Your task to perform on an android device: visit the assistant section in the google photos Image 0: 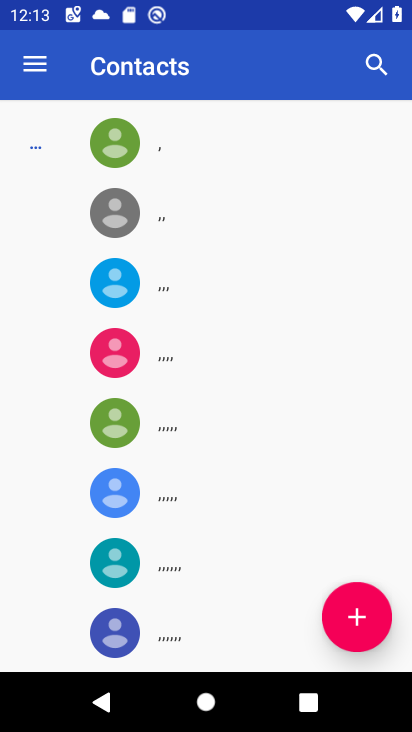
Step 0: press home button
Your task to perform on an android device: visit the assistant section in the google photos Image 1: 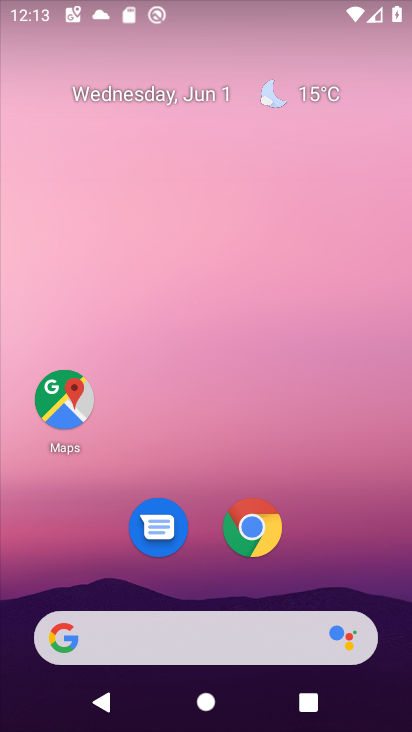
Step 1: drag from (358, 614) to (325, 0)
Your task to perform on an android device: visit the assistant section in the google photos Image 2: 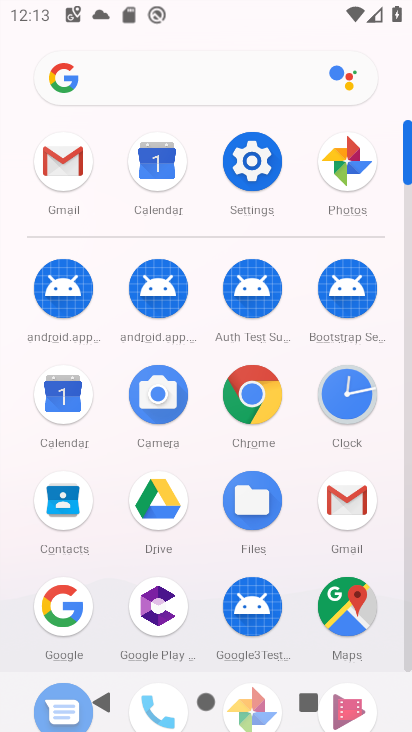
Step 2: click (349, 166)
Your task to perform on an android device: visit the assistant section in the google photos Image 3: 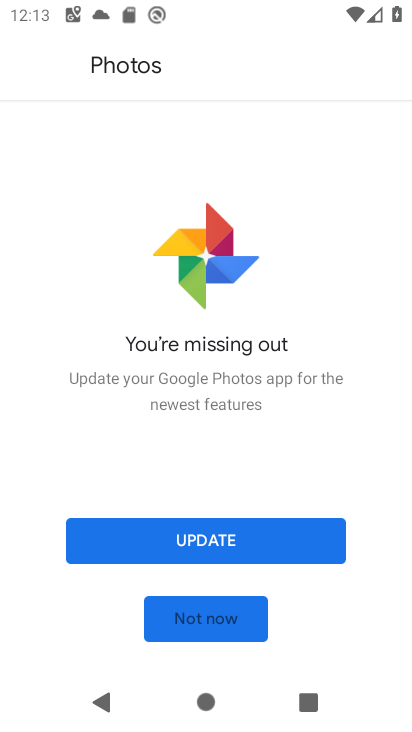
Step 3: click (225, 606)
Your task to perform on an android device: visit the assistant section in the google photos Image 4: 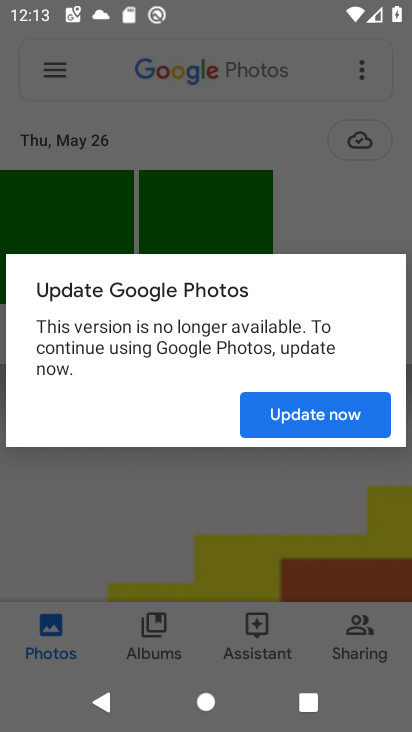
Step 4: click (322, 406)
Your task to perform on an android device: visit the assistant section in the google photos Image 5: 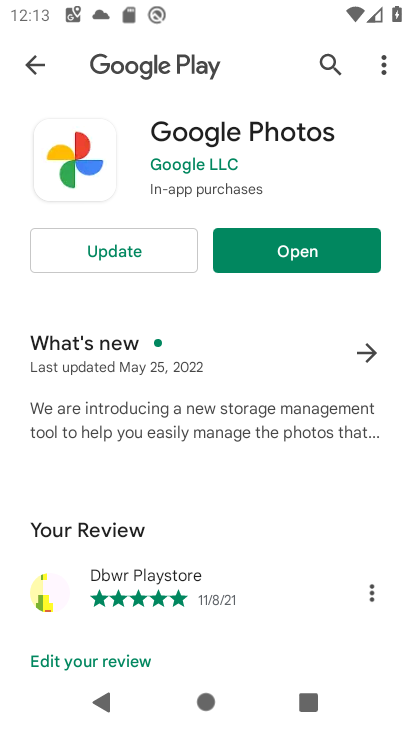
Step 5: click (275, 256)
Your task to perform on an android device: visit the assistant section in the google photos Image 6: 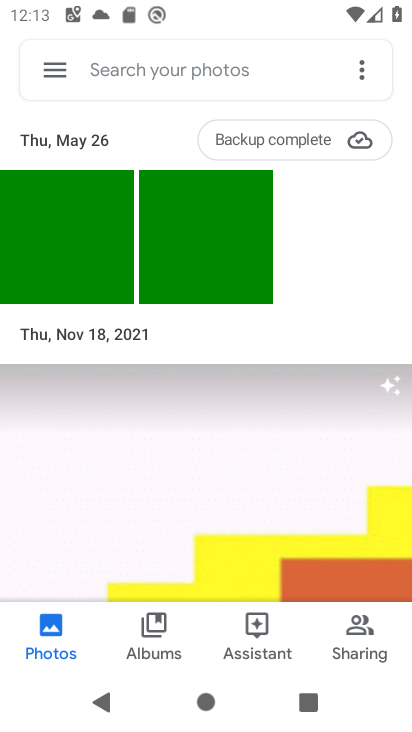
Step 6: click (263, 639)
Your task to perform on an android device: visit the assistant section in the google photos Image 7: 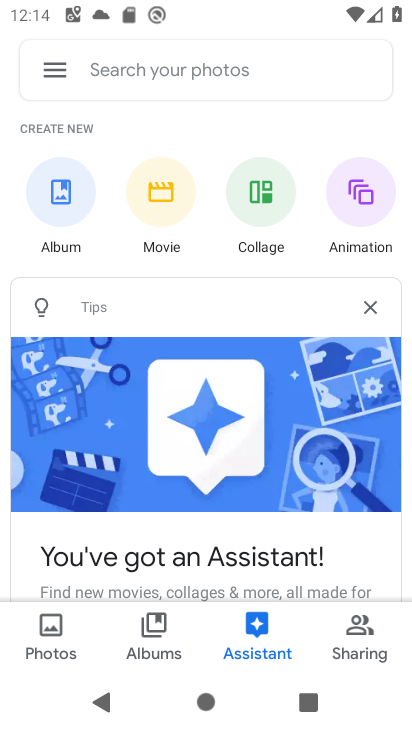
Step 7: task complete